Your task to perform on an android device: turn on the 24-hour format for clock Image 0: 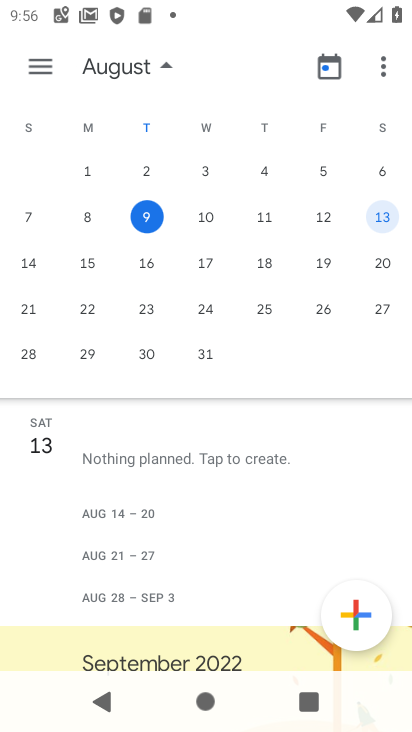
Step 0: press home button
Your task to perform on an android device: turn on the 24-hour format for clock Image 1: 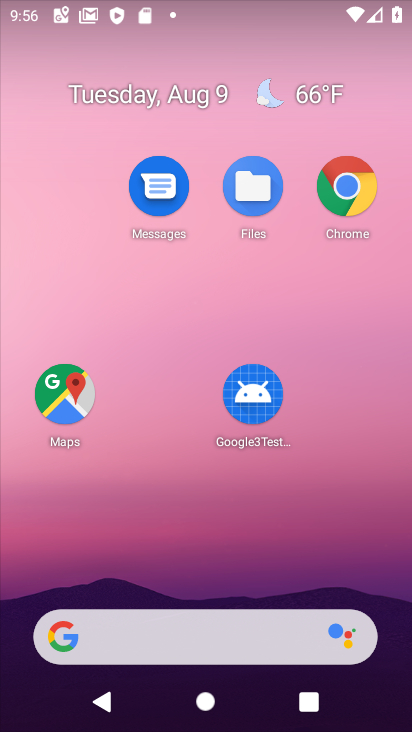
Step 1: drag from (253, 586) to (304, 25)
Your task to perform on an android device: turn on the 24-hour format for clock Image 2: 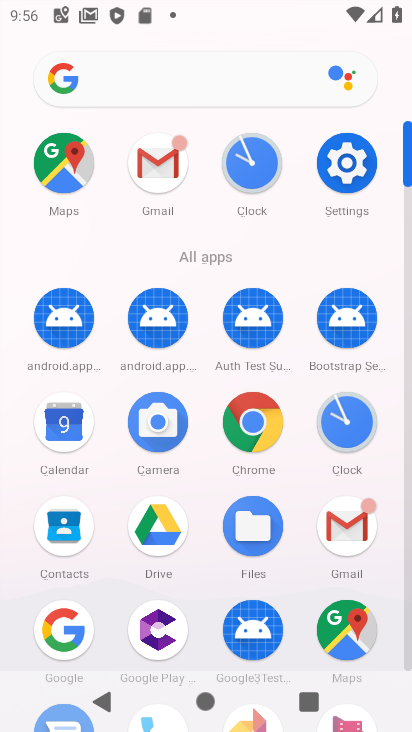
Step 2: click (265, 143)
Your task to perform on an android device: turn on the 24-hour format for clock Image 3: 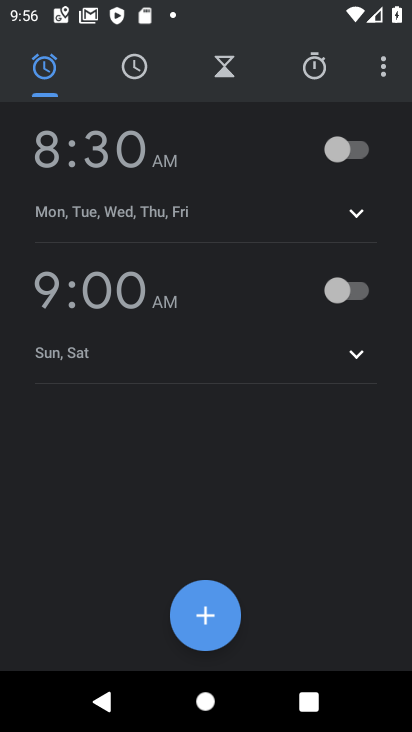
Step 3: click (391, 68)
Your task to perform on an android device: turn on the 24-hour format for clock Image 4: 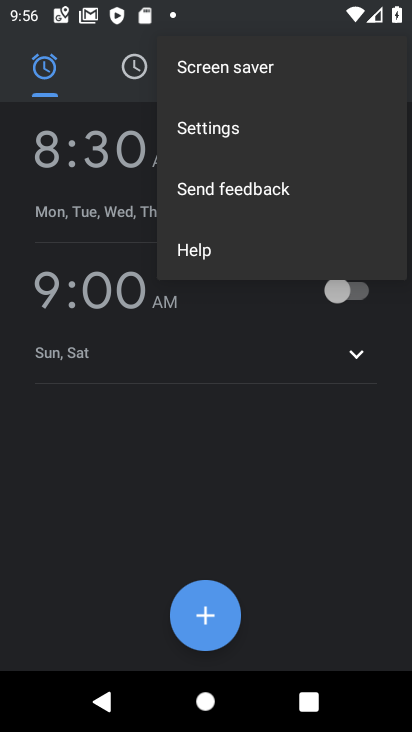
Step 4: click (272, 126)
Your task to perform on an android device: turn on the 24-hour format for clock Image 5: 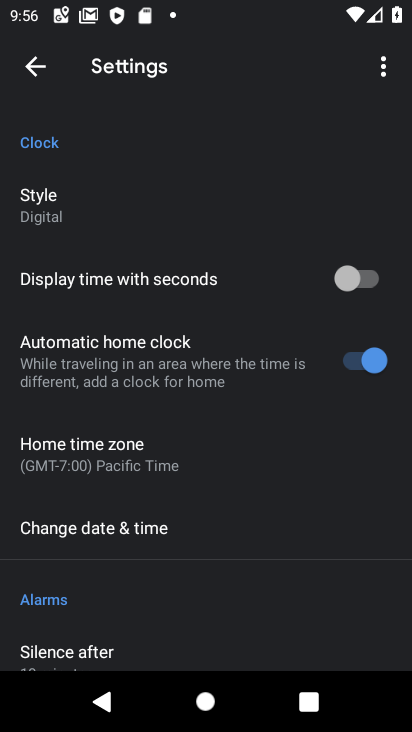
Step 5: click (156, 522)
Your task to perform on an android device: turn on the 24-hour format for clock Image 6: 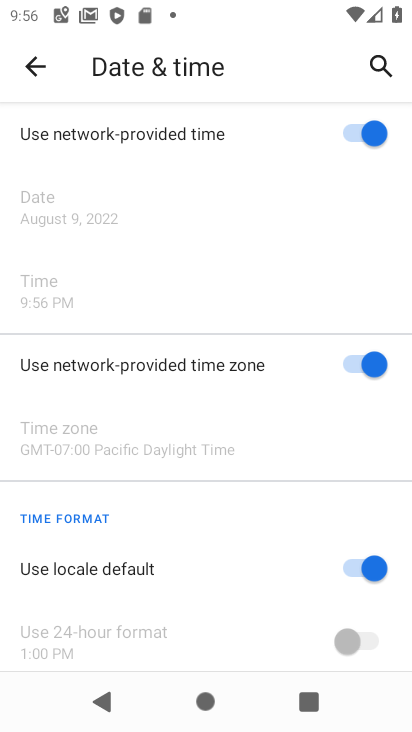
Step 6: click (362, 571)
Your task to perform on an android device: turn on the 24-hour format for clock Image 7: 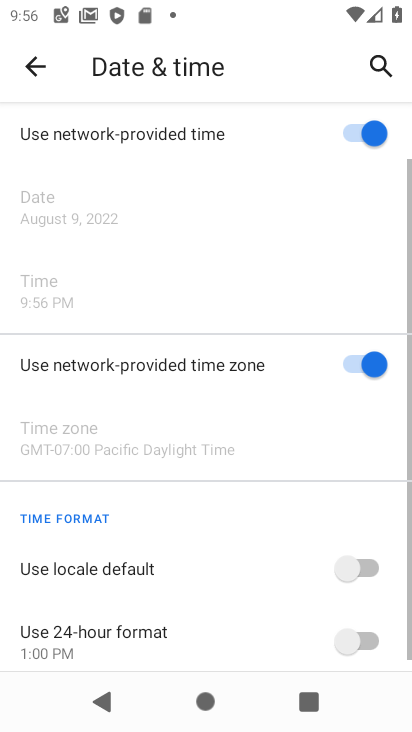
Step 7: click (356, 642)
Your task to perform on an android device: turn on the 24-hour format for clock Image 8: 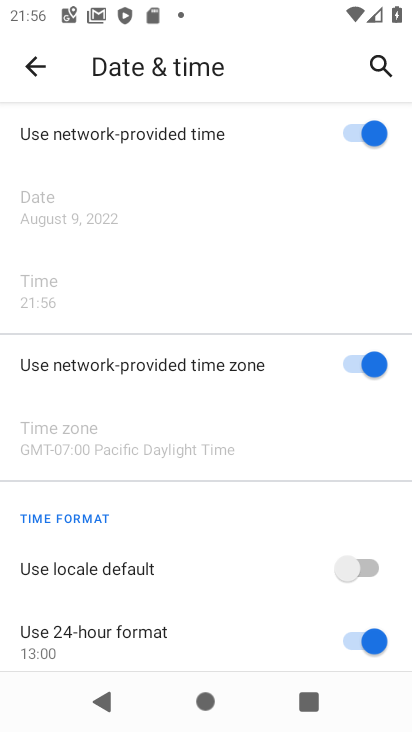
Step 8: task complete